Your task to perform on an android device: Open accessibility settings Image 0: 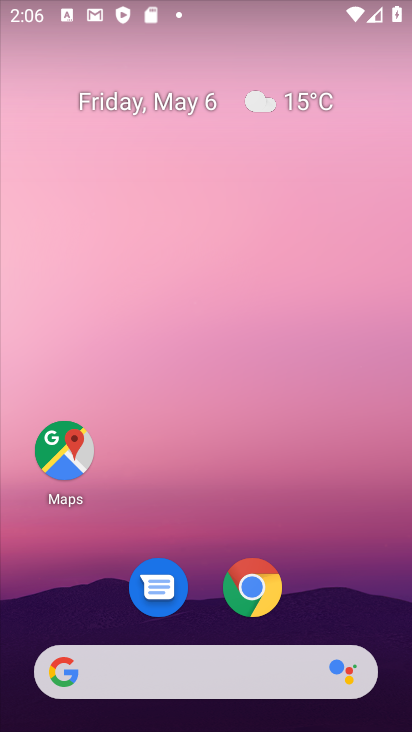
Step 0: drag from (368, 533) to (371, 80)
Your task to perform on an android device: Open accessibility settings Image 1: 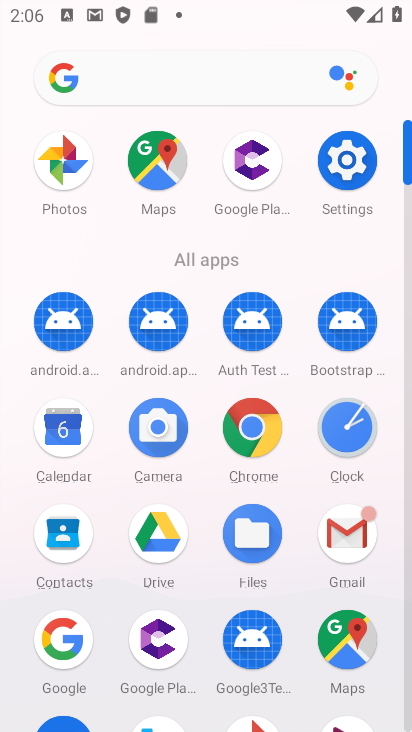
Step 1: click (368, 160)
Your task to perform on an android device: Open accessibility settings Image 2: 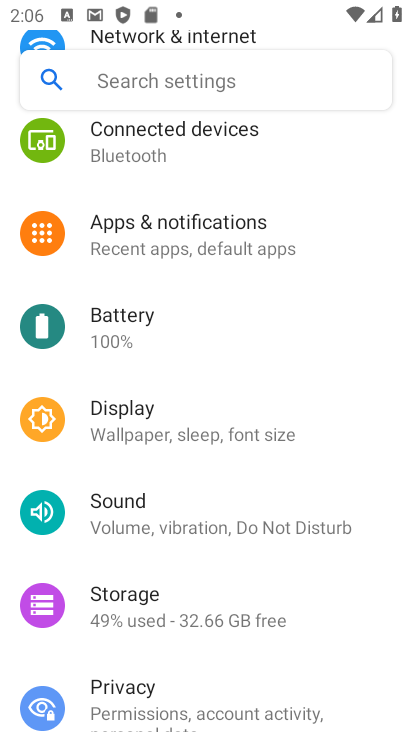
Step 2: drag from (257, 245) to (204, 522)
Your task to perform on an android device: Open accessibility settings Image 3: 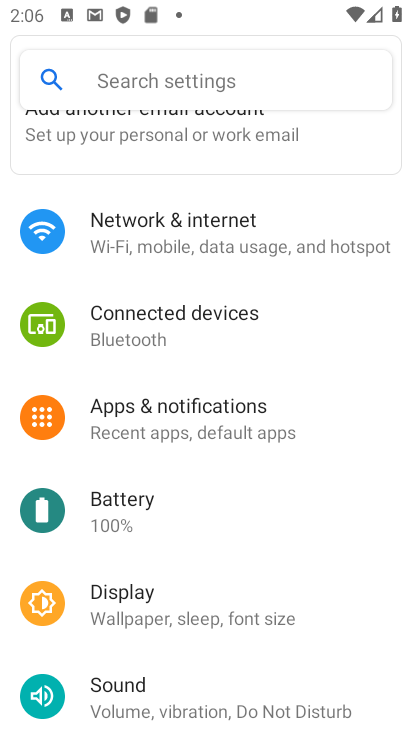
Step 3: drag from (287, 281) to (254, 576)
Your task to perform on an android device: Open accessibility settings Image 4: 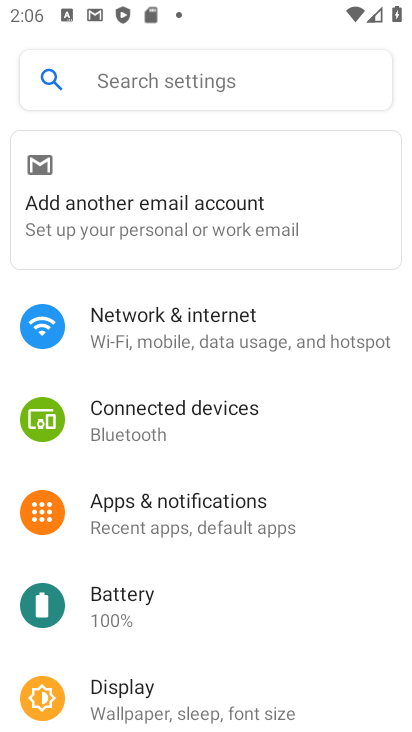
Step 4: drag from (259, 547) to (335, 221)
Your task to perform on an android device: Open accessibility settings Image 5: 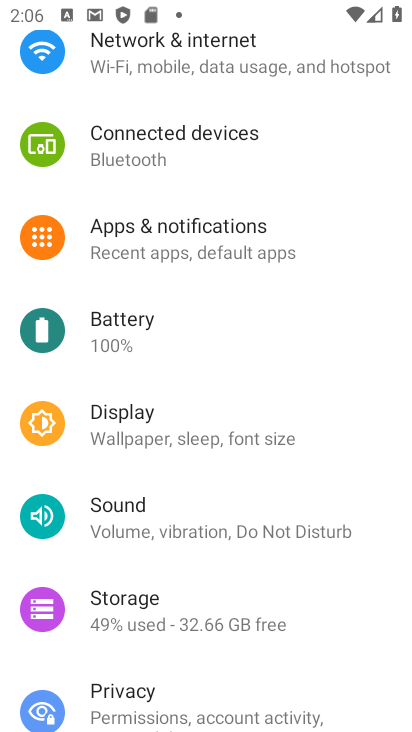
Step 5: drag from (210, 547) to (253, 219)
Your task to perform on an android device: Open accessibility settings Image 6: 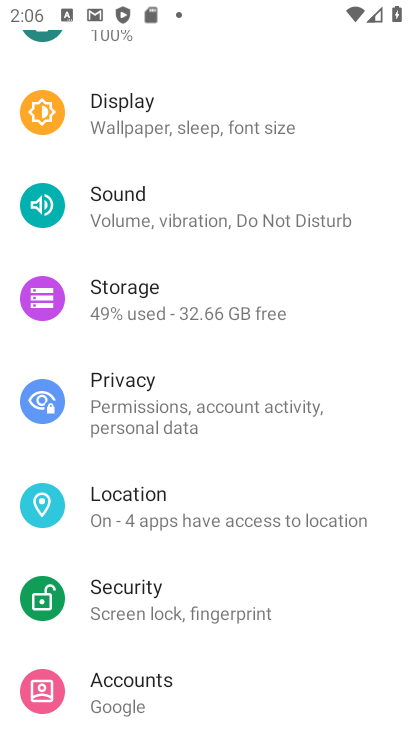
Step 6: drag from (198, 599) to (254, 245)
Your task to perform on an android device: Open accessibility settings Image 7: 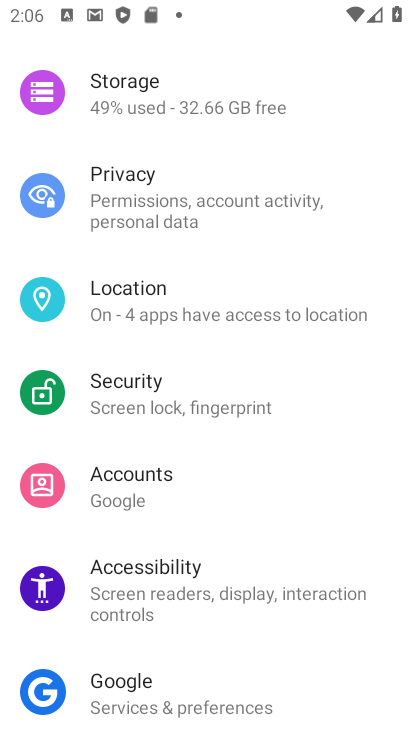
Step 7: click (148, 598)
Your task to perform on an android device: Open accessibility settings Image 8: 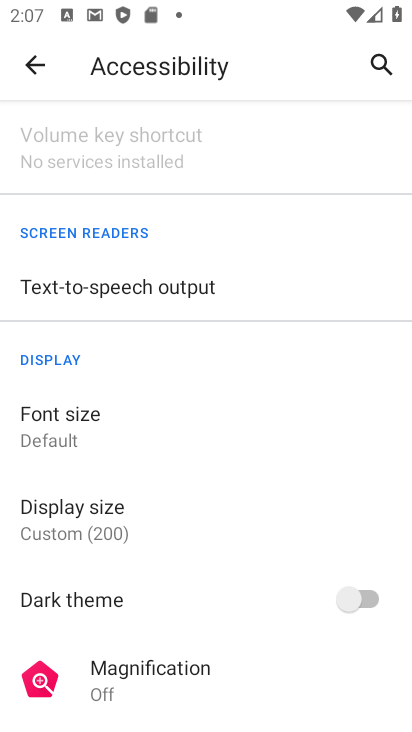
Step 8: task complete